Your task to perform on an android device: How do I get to the nearest Home Depot? Image 0: 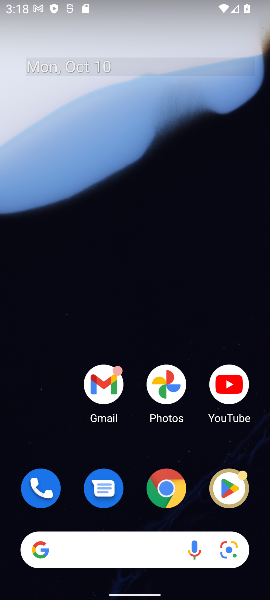
Step 0: click (112, 553)
Your task to perform on an android device: How do I get to the nearest Home Depot? Image 1: 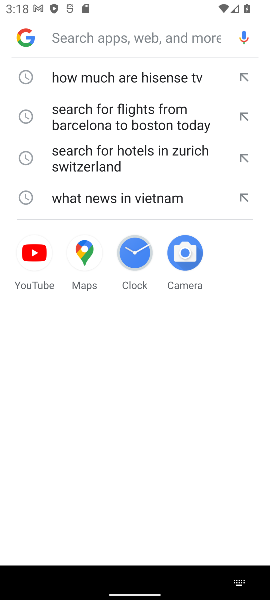
Step 1: click (98, 36)
Your task to perform on an android device: How do I get to the nearest Home Depot? Image 2: 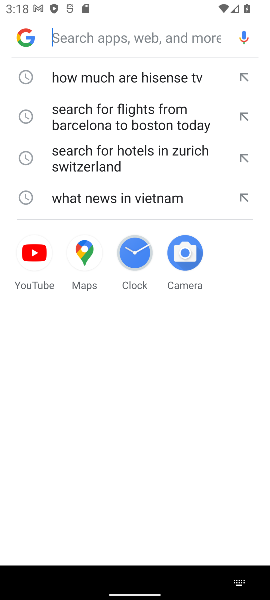
Step 2: type "How do I get to the nearest Home Depot?"
Your task to perform on an android device: How do I get to the nearest Home Depot? Image 3: 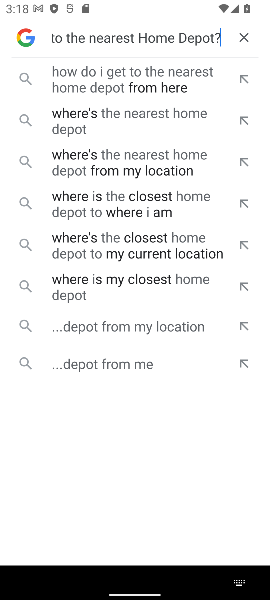
Step 3: click (130, 87)
Your task to perform on an android device: How do I get to the nearest Home Depot? Image 4: 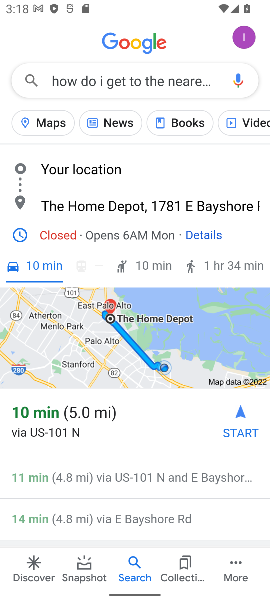
Step 4: task complete